Your task to perform on an android device: turn off wifi Image 0: 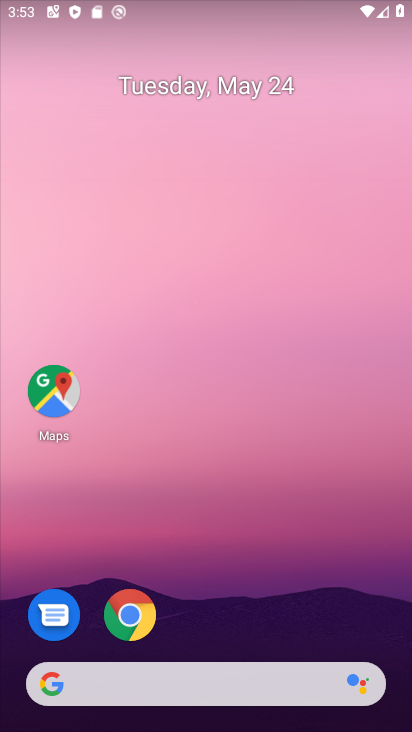
Step 0: drag from (225, 724) to (229, 103)
Your task to perform on an android device: turn off wifi Image 1: 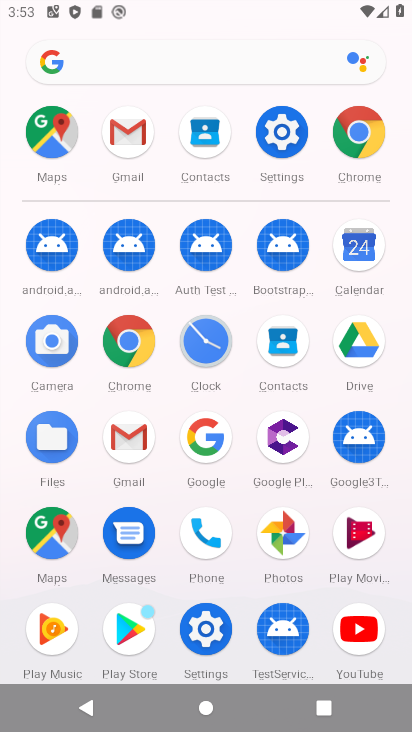
Step 1: click (284, 133)
Your task to perform on an android device: turn off wifi Image 2: 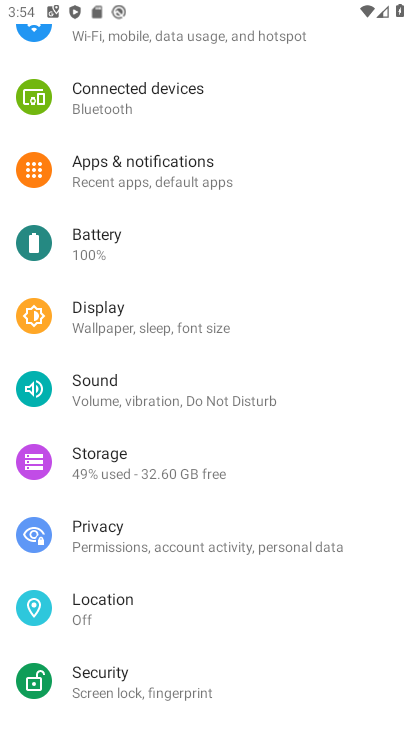
Step 2: drag from (228, 108) to (258, 611)
Your task to perform on an android device: turn off wifi Image 3: 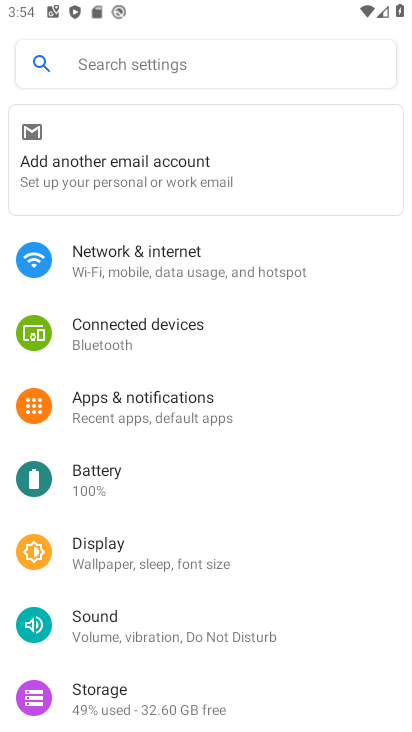
Step 3: click (154, 268)
Your task to perform on an android device: turn off wifi Image 4: 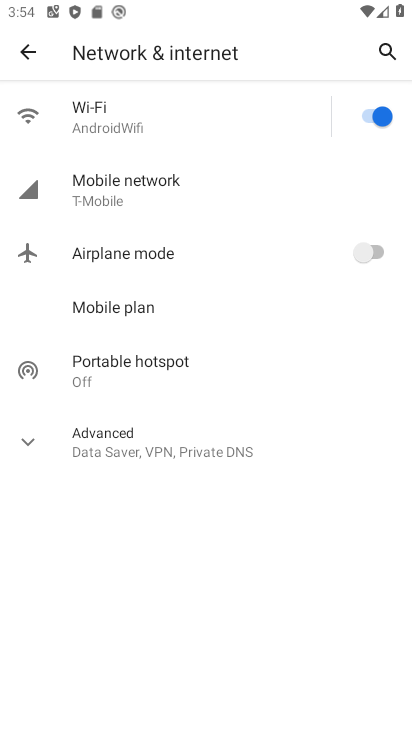
Step 4: click (366, 114)
Your task to perform on an android device: turn off wifi Image 5: 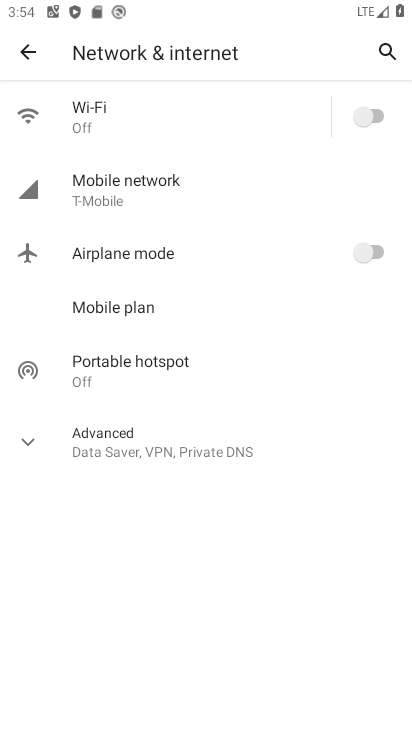
Step 5: task complete